Your task to perform on an android device: uninstall "Pinterest" Image 0: 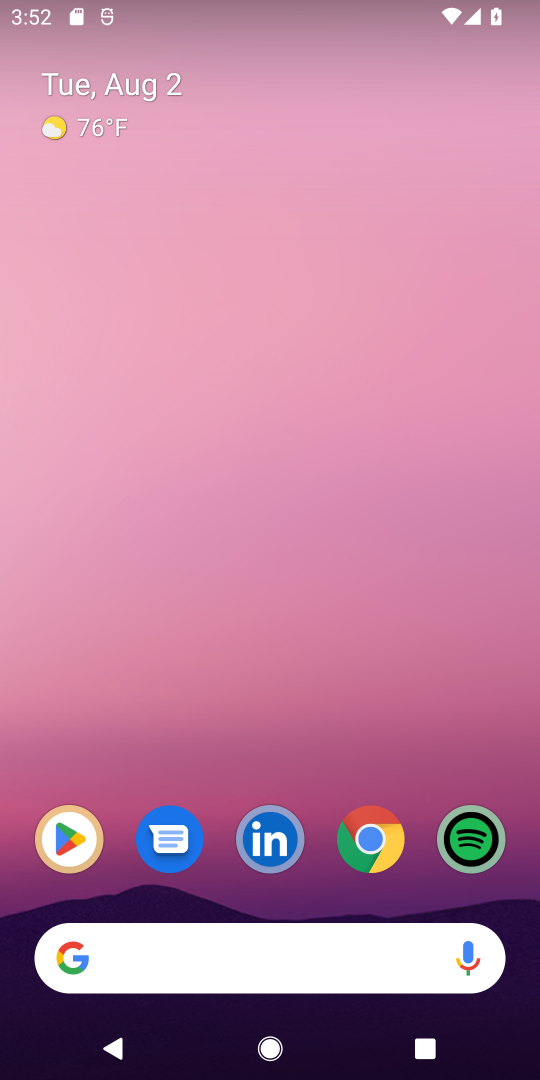
Step 0: click (59, 867)
Your task to perform on an android device: uninstall "Pinterest" Image 1: 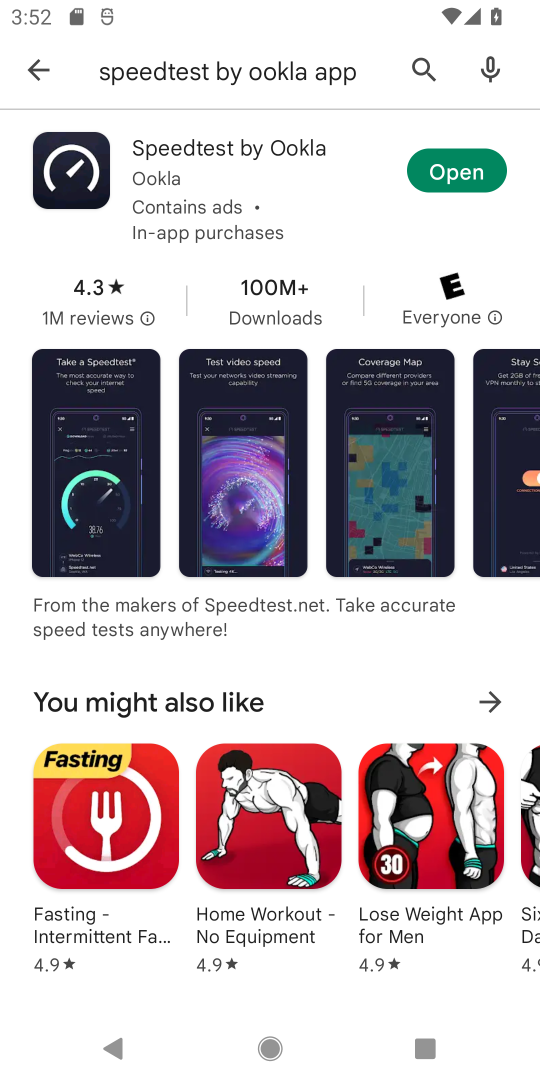
Step 1: click (413, 70)
Your task to perform on an android device: uninstall "Pinterest" Image 2: 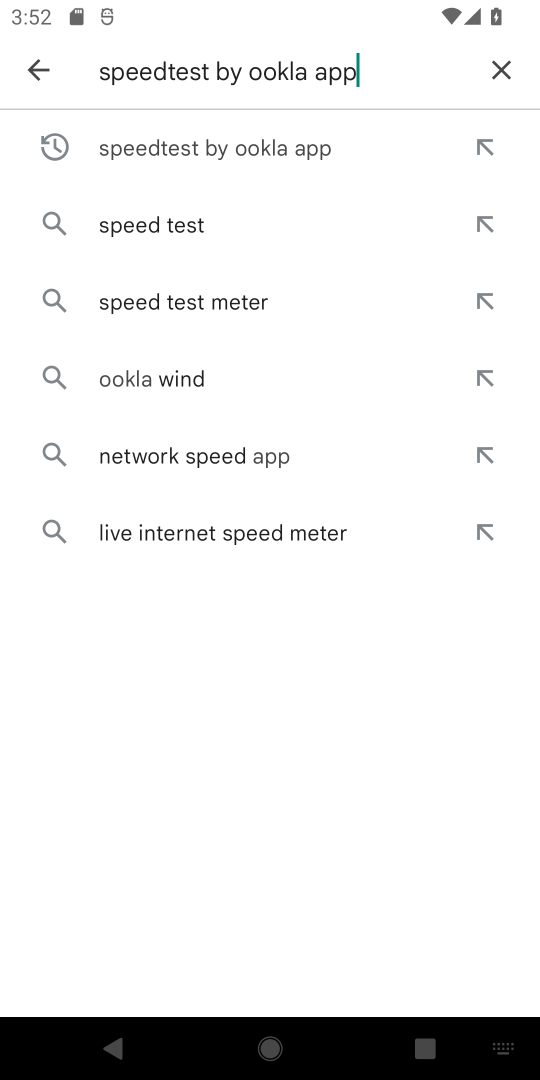
Step 2: click (488, 71)
Your task to perform on an android device: uninstall "Pinterest" Image 3: 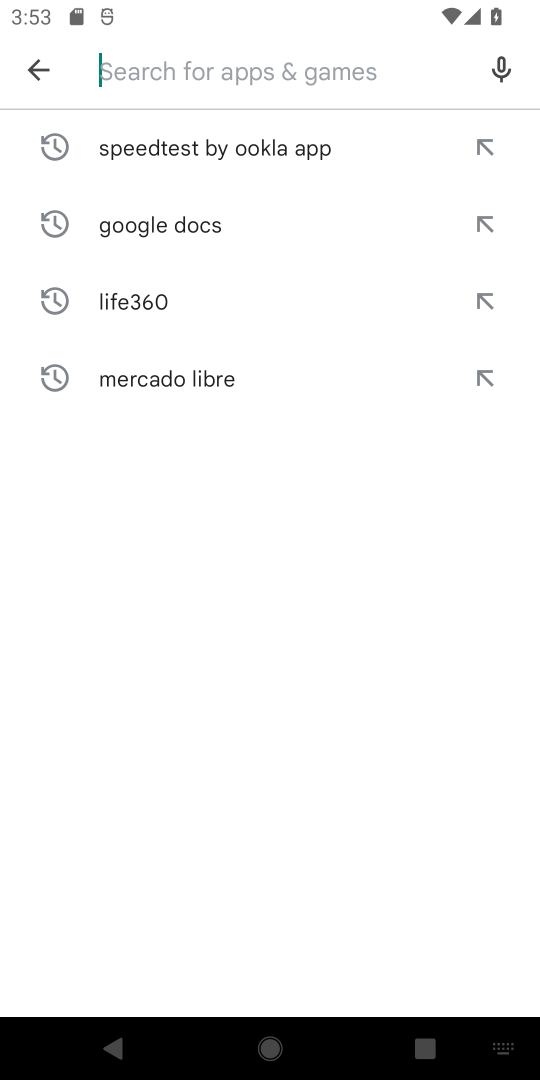
Step 3: type "pinterset"
Your task to perform on an android device: uninstall "Pinterest" Image 4: 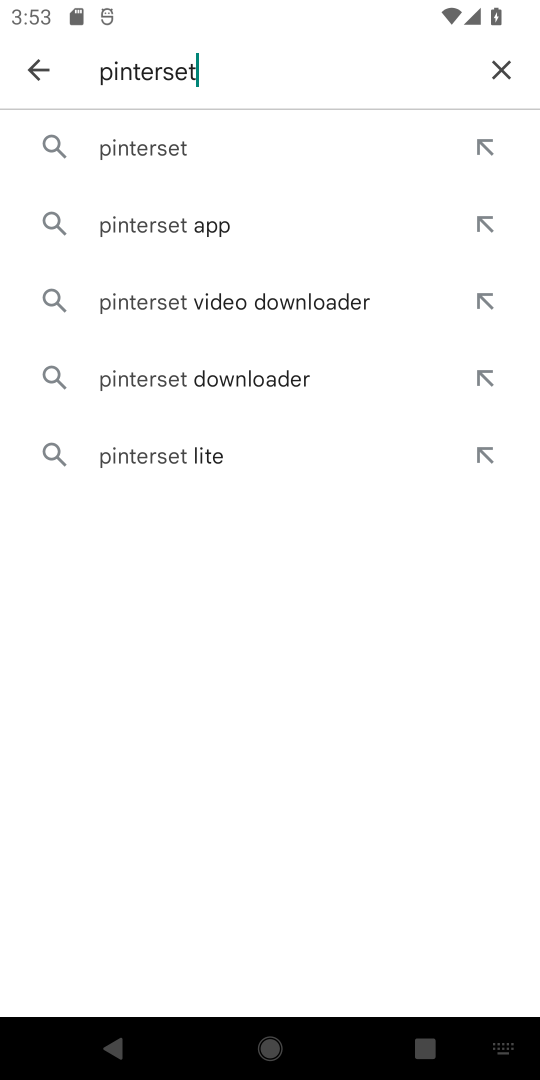
Step 4: click (194, 168)
Your task to perform on an android device: uninstall "Pinterest" Image 5: 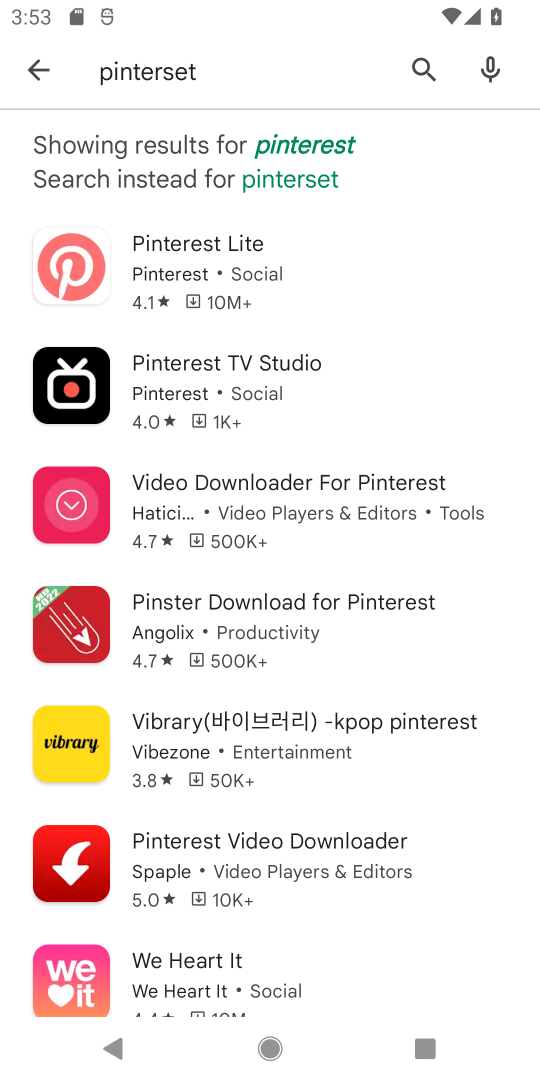
Step 5: click (390, 279)
Your task to perform on an android device: uninstall "Pinterest" Image 6: 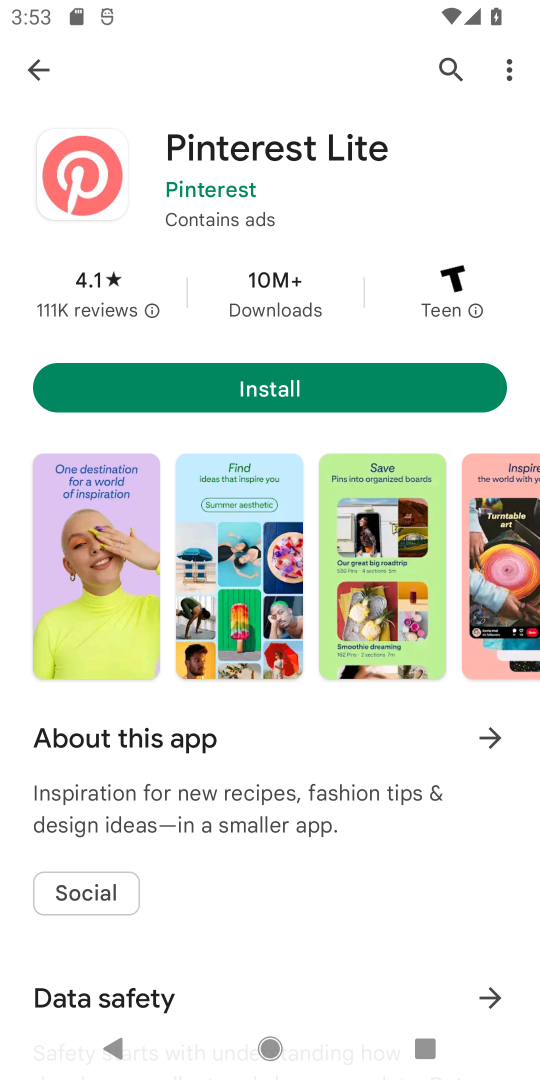
Step 6: click (372, 369)
Your task to perform on an android device: uninstall "Pinterest" Image 7: 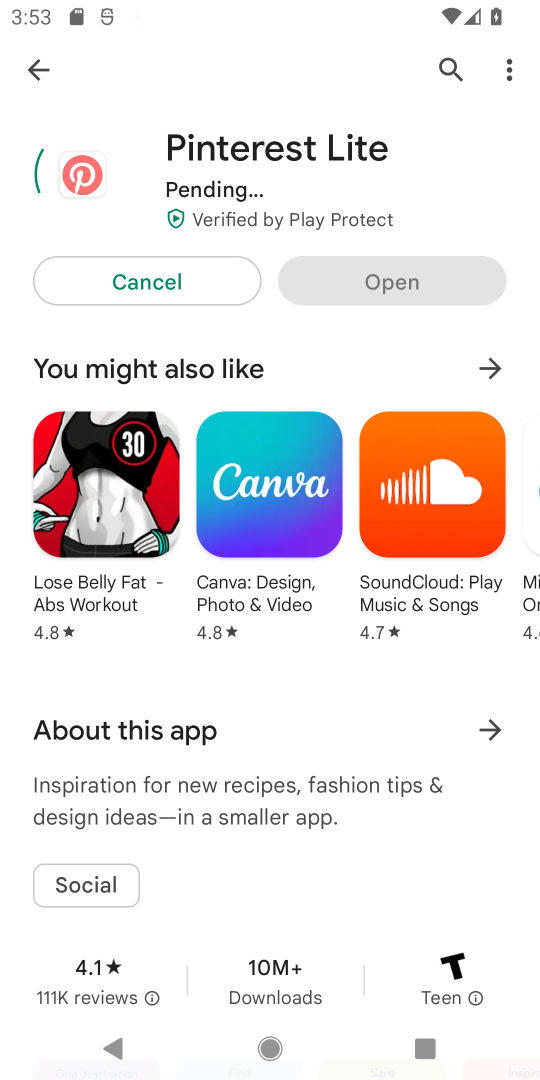
Step 7: task complete